Your task to perform on an android device: turn smart compose on in the gmail app Image 0: 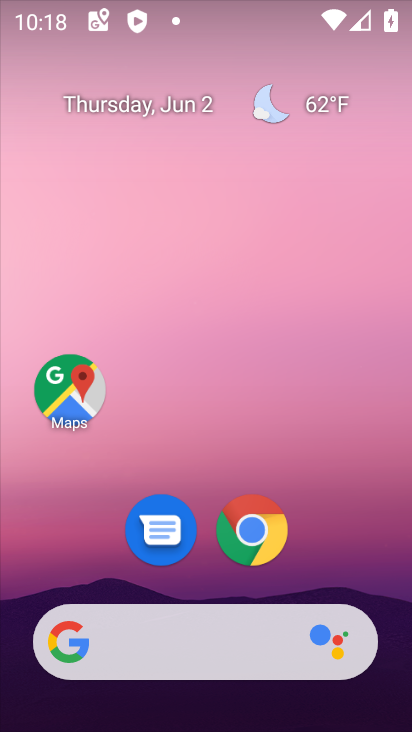
Step 0: drag from (91, 591) to (188, 156)
Your task to perform on an android device: turn smart compose on in the gmail app Image 1: 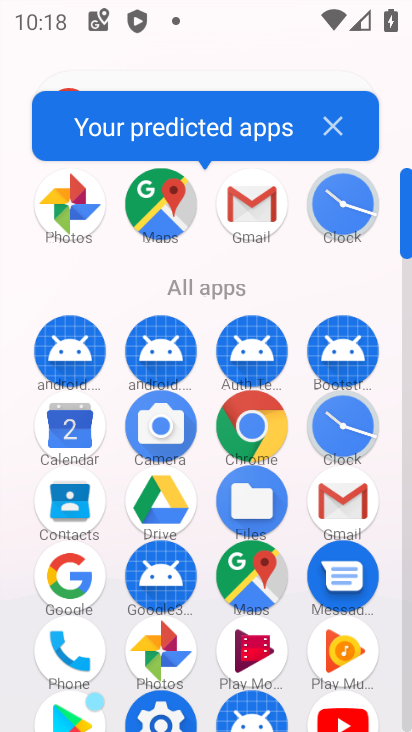
Step 1: click (343, 501)
Your task to perform on an android device: turn smart compose on in the gmail app Image 2: 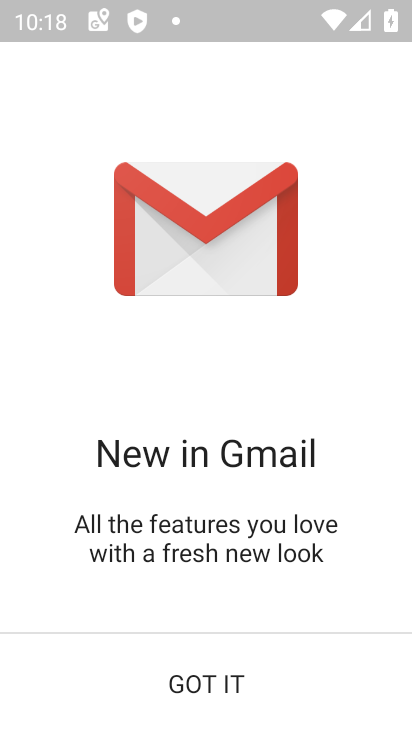
Step 2: click (210, 677)
Your task to perform on an android device: turn smart compose on in the gmail app Image 3: 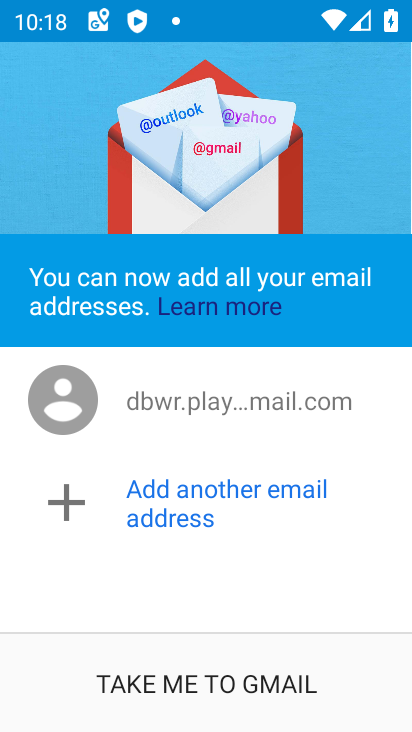
Step 3: click (247, 696)
Your task to perform on an android device: turn smart compose on in the gmail app Image 4: 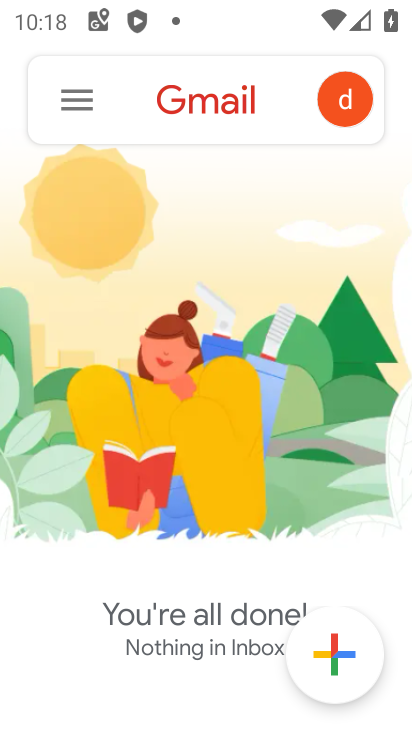
Step 4: click (85, 101)
Your task to perform on an android device: turn smart compose on in the gmail app Image 5: 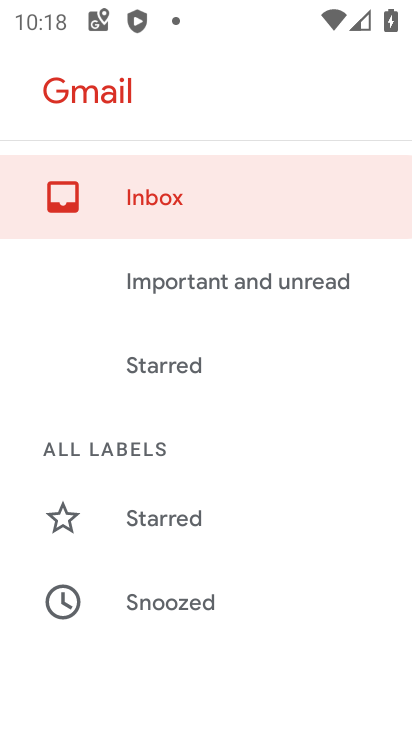
Step 5: drag from (105, 537) to (234, 87)
Your task to perform on an android device: turn smart compose on in the gmail app Image 6: 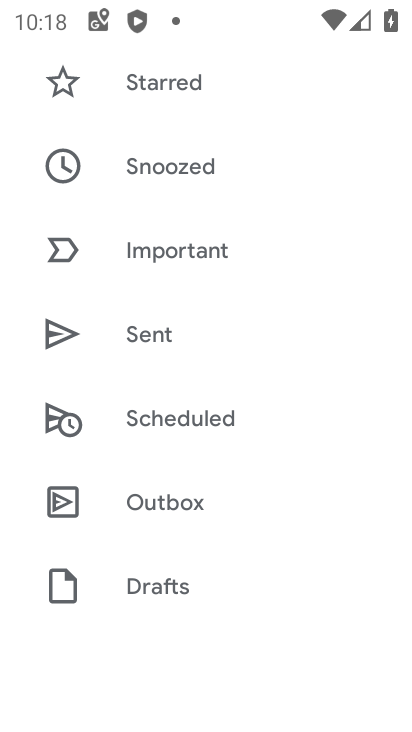
Step 6: drag from (176, 456) to (266, 139)
Your task to perform on an android device: turn smart compose on in the gmail app Image 7: 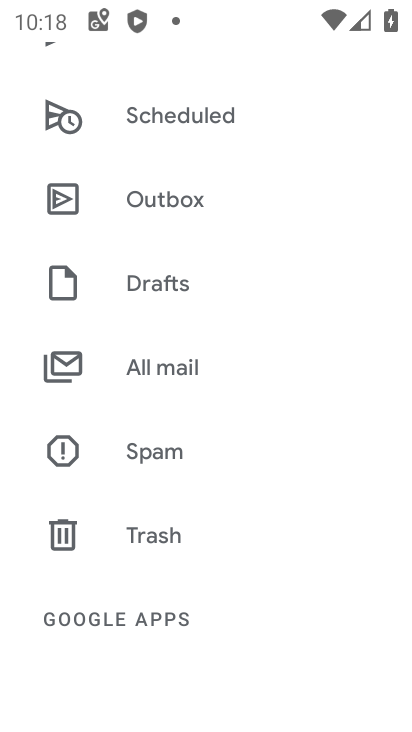
Step 7: drag from (219, 564) to (298, 186)
Your task to perform on an android device: turn smart compose on in the gmail app Image 8: 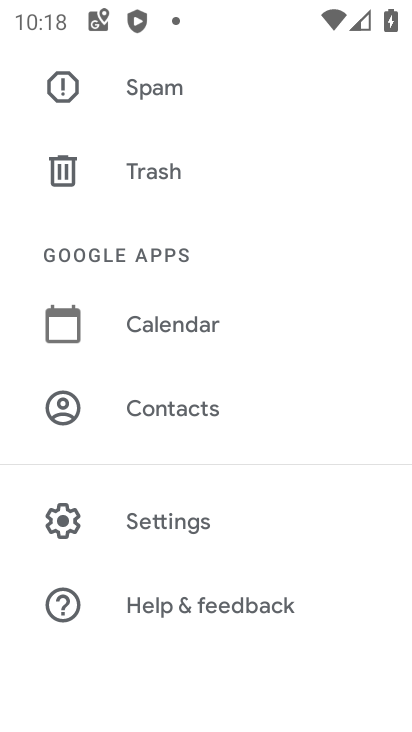
Step 8: click (198, 531)
Your task to perform on an android device: turn smart compose on in the gmail app Image 9: 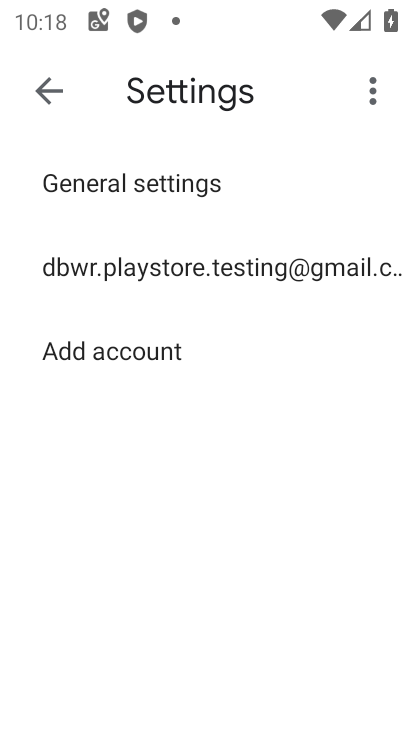
Step 9: click (267, 275)
Your task to perform on an android device: turn smart compose on in the gmail app Image 10: 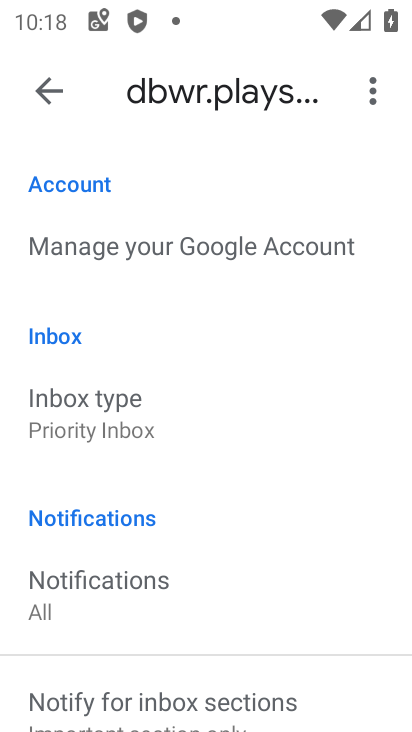
Step 10: task complete